Your task to perform on an android device: set an alarm Image 0: 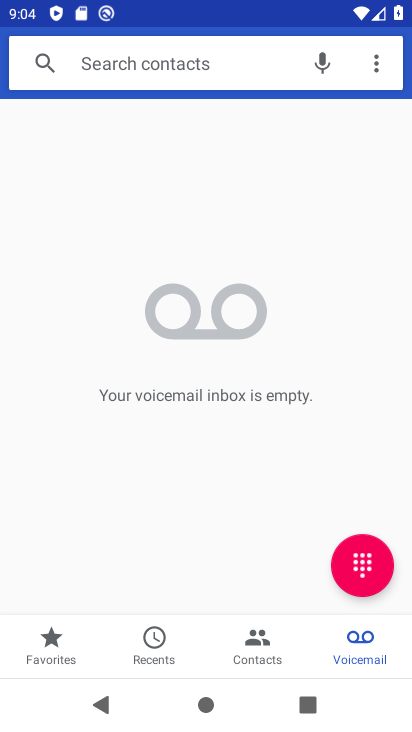
Step 0: press home button
Your task to perform on an android device: set an alarm Image 1: 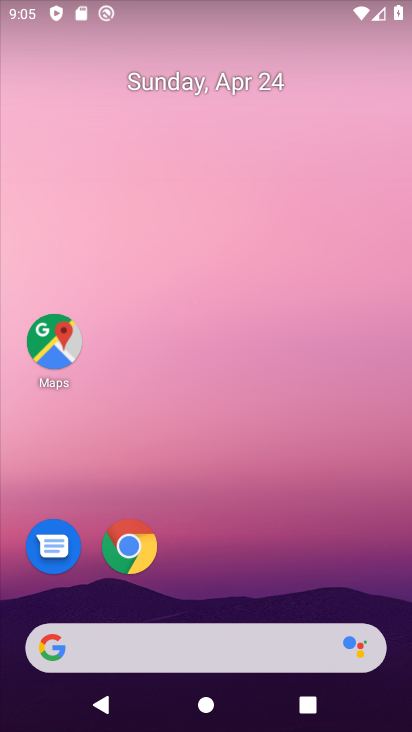
Step 1: drag from (219, 505) to (220, 192)
Your task to perform on an android device: set an alarm Image 2: 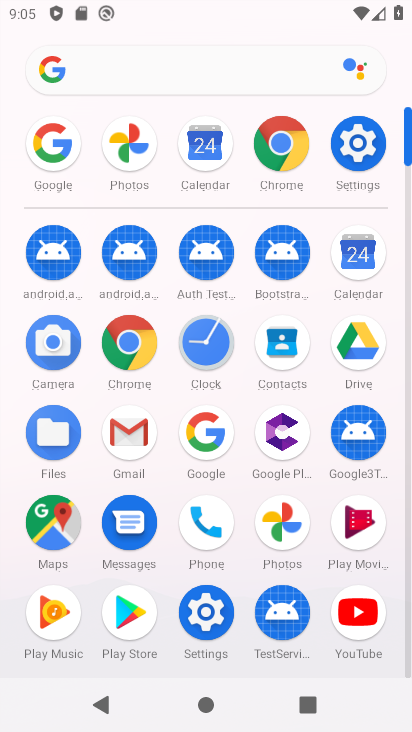
Step 2: click (195, 340)
Your task to perform on an android device: set an alarm Image 3: 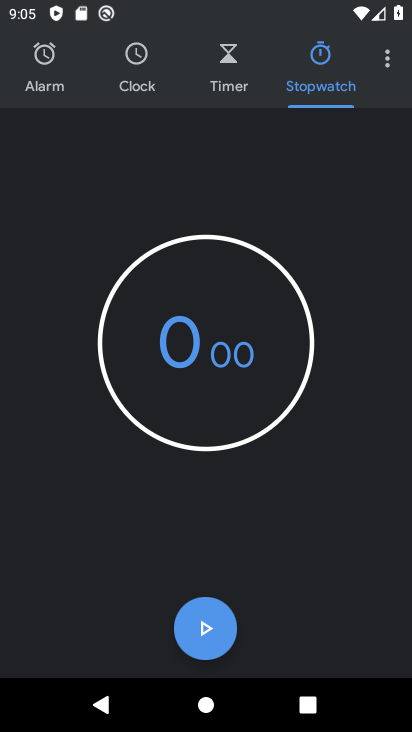
Step 3: click (59, 65)
Your task to perform on an android device: set an alarm Image 4: 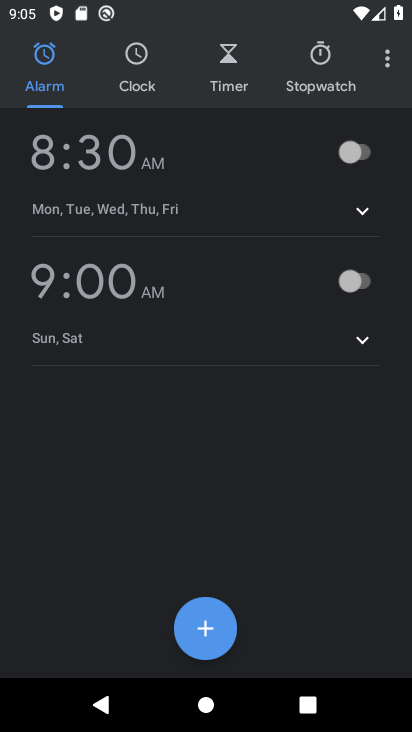
Step 4: click (351, 142)
Your task to perform on an android device: set an alarm Image 5: 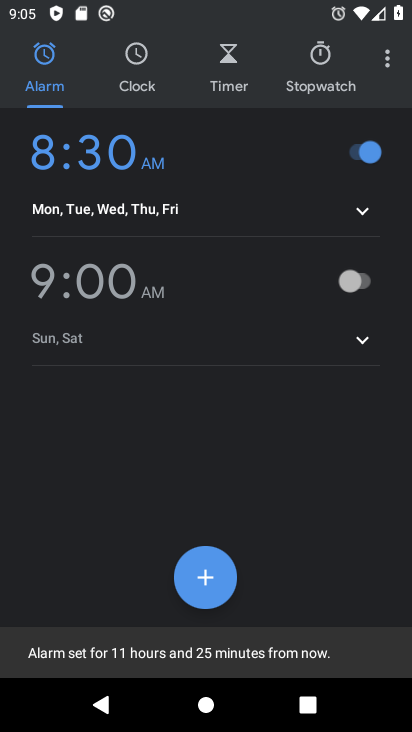
Step 5: task complete